Your task to perform on an android device: turn notification dots on Image 0: 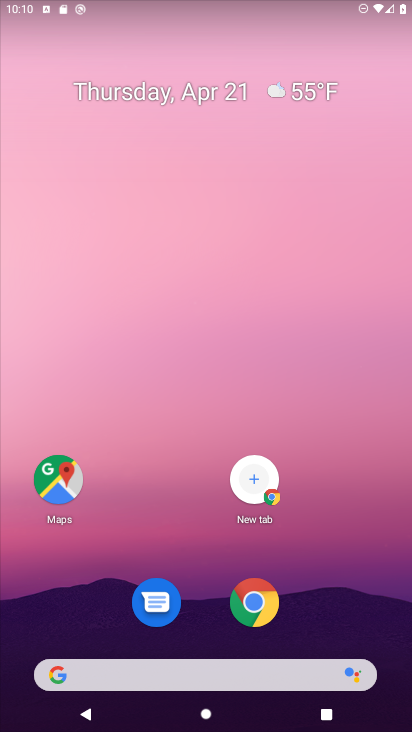
Step 0: drag from (223, 615) to (218, 226)
Your task to perform on an android device: turn notification dots on Image 1: 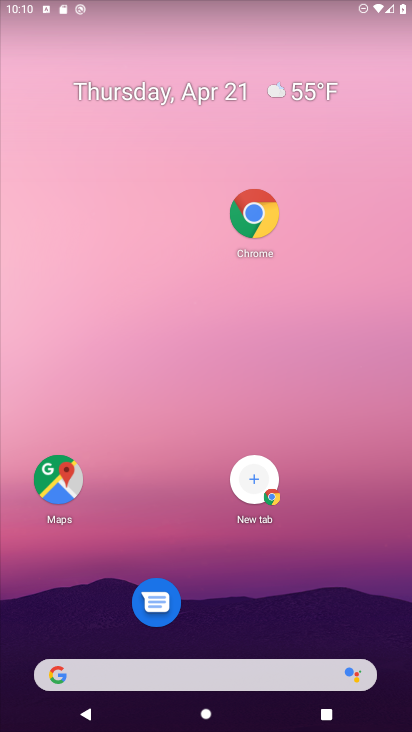
Step 1: drag from (231, 645) to (155, 135)
Your task to perform on an android device: turn notification dots on Image 2: 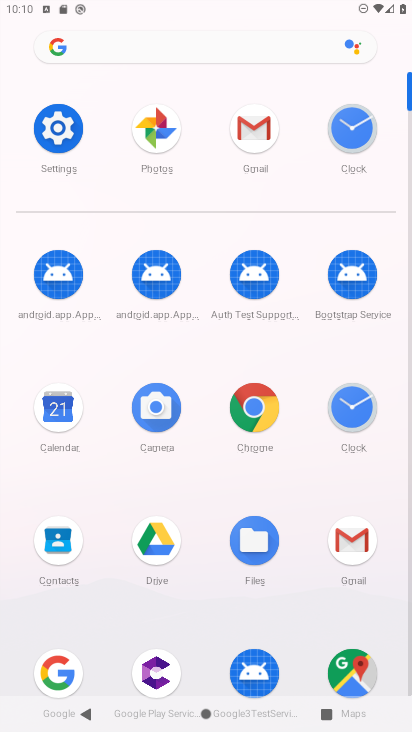
Step 2: click (53, 127)
Your task to perform on an android device: turn notification dots on Image 3: 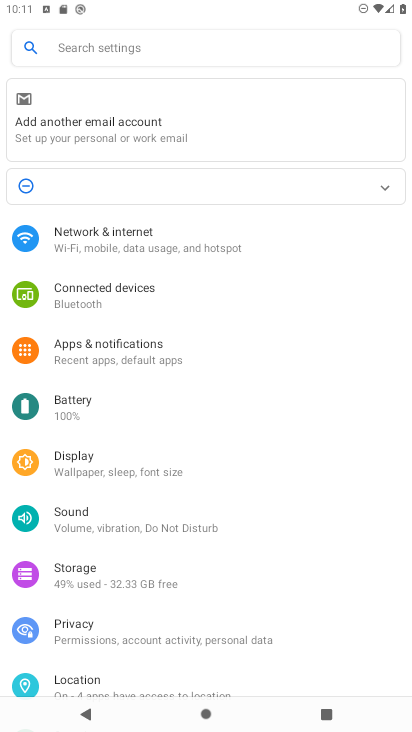
Step 3: click (123, 349)
Your task to perform on an android device: turn notification dots on Image 4: 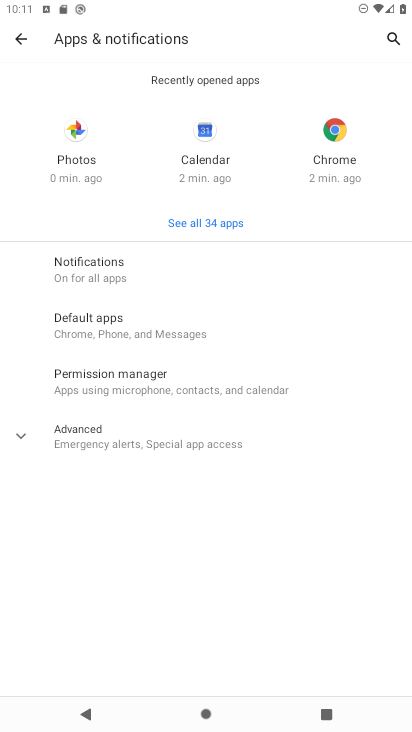
Step 4: click (91, 268)
Your task to perform on an android device: turn notification dots on Image 5: 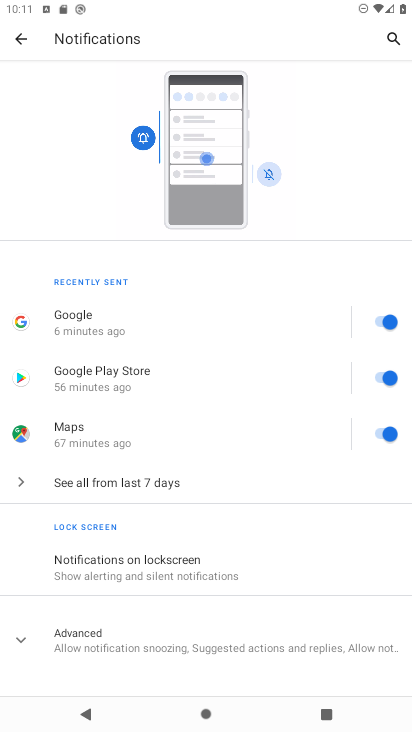
Step 5: click (162, 633)
Your task to perform on an android device: turn notification dots on Image 6: 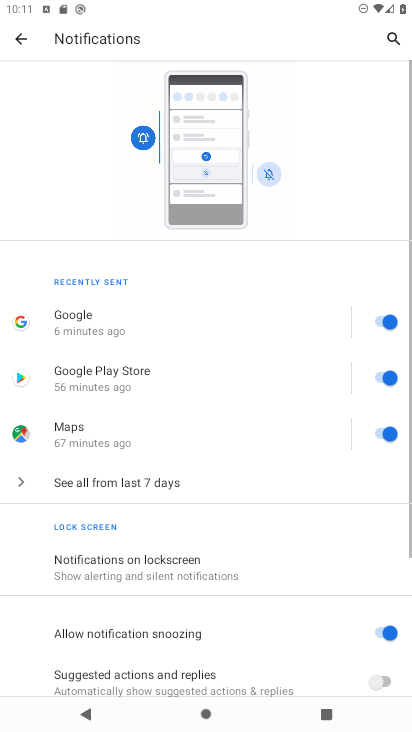
Step 6: task complete